Your task to perform on an android device: install app "Calculator" Image 0: 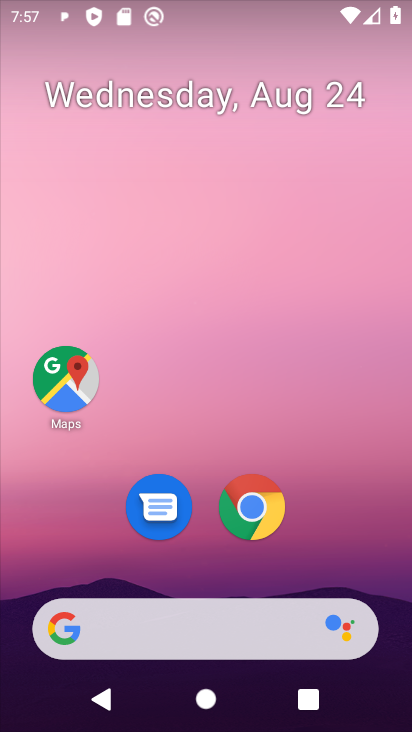
Step 0: drag from (345, 505) to (343, 106)
Your task to perform on an android device: install app "Calculator" Image 1: 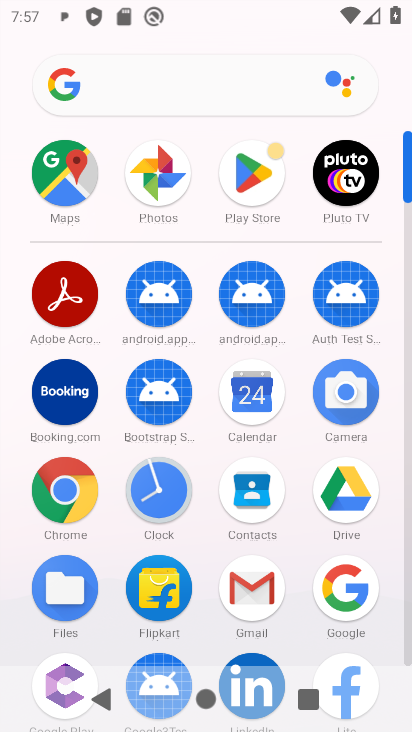
Step 1: click (255, 178)
Your task to perform on an android device: install app "Calculator" Image 2: 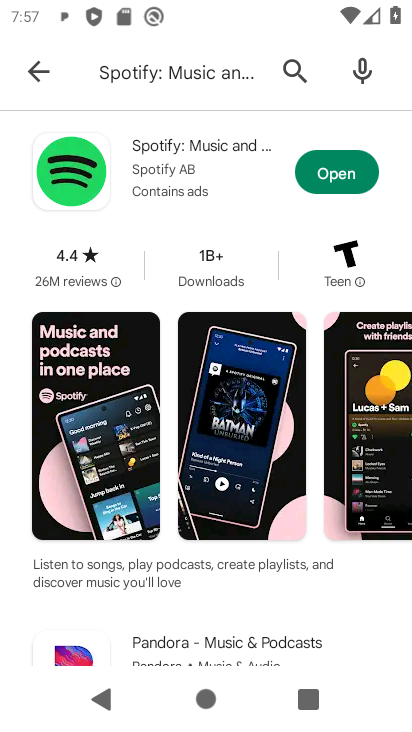
Step 2: press back button
Your task to perform on an android device: install app "Calculator" Image 3: 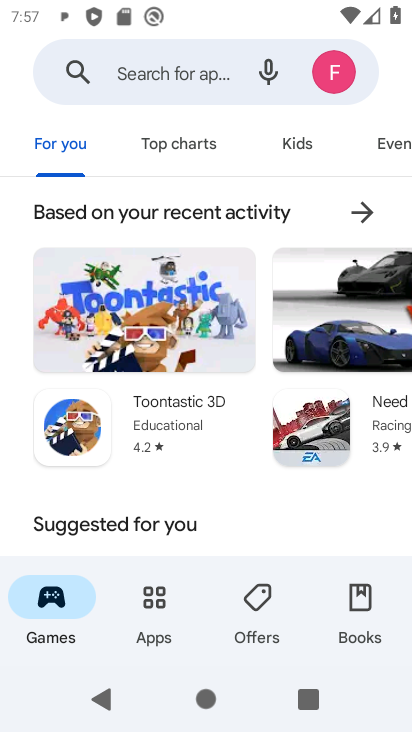
Step 3: click (197, 80)
Your task to perform on an android device: install app "Calculator" Image 4: 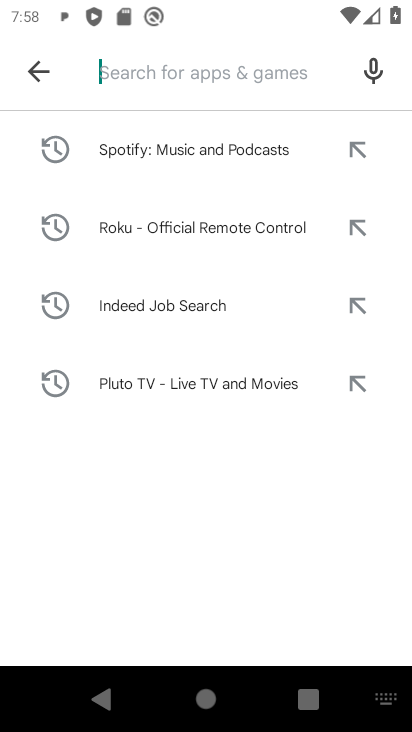
Step 4: type "Calculator"
Your task to perform on an android device: install app "Calculator" Image 5: 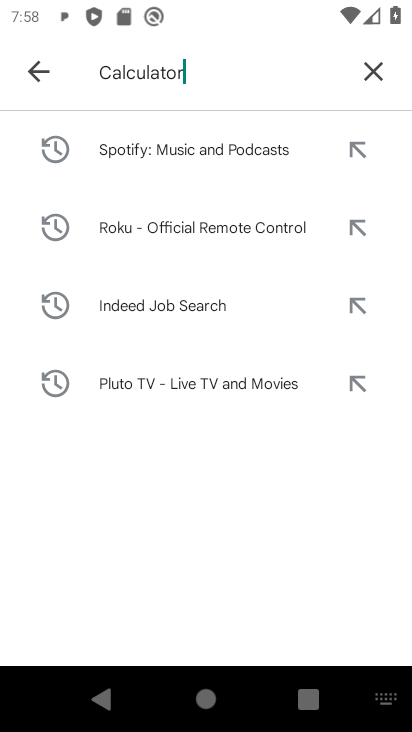
Step 5: press enter
Your task to perform on an android device: install app "Calculator" Image 6: 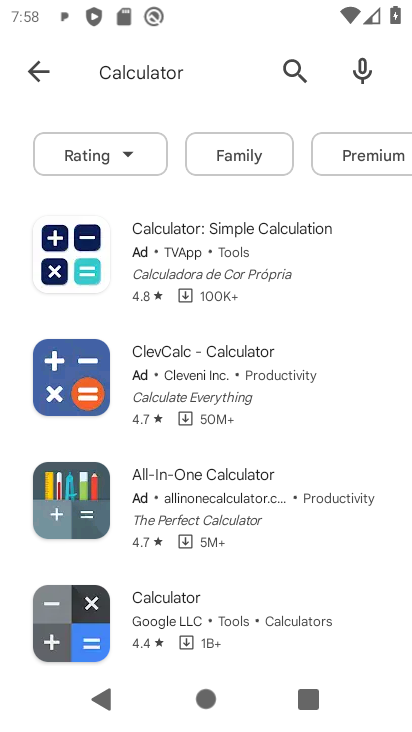
Step 6: click (186, 590)
Your task to perform on an android device: install app "Calculator" Image 7: 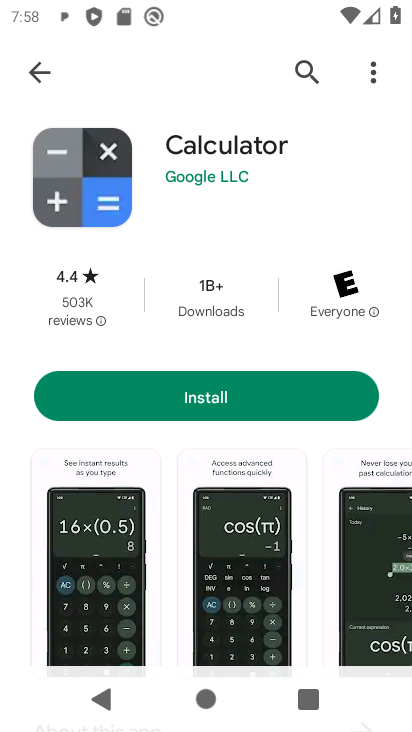
Step 7: click (257, 401)
Your task to perform on an android device: install app "Calculator" Image 8: 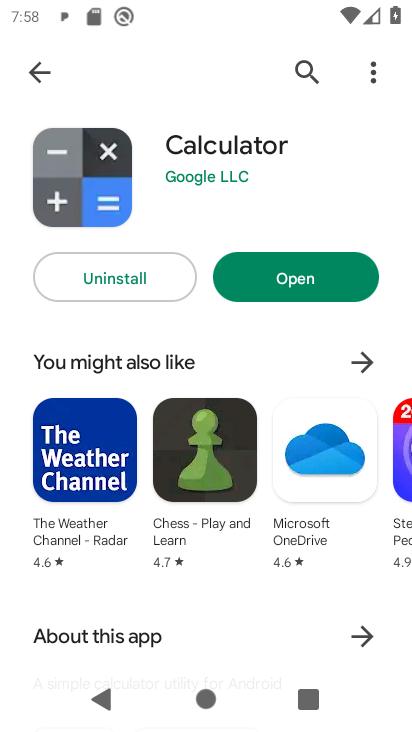
Step 8: task complete